Your task to perform on an android device: open chrome privacy settings Image 0: 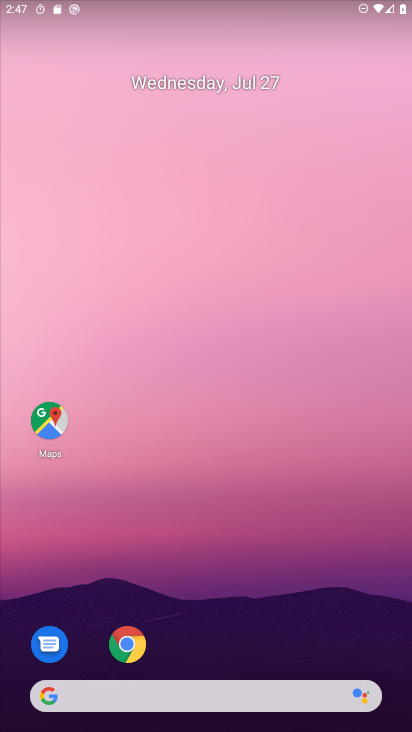
Step 0: drag from (196, 652) to (245, 13)
Your task to perform on an android device: open chrome privacy settings Image 1: 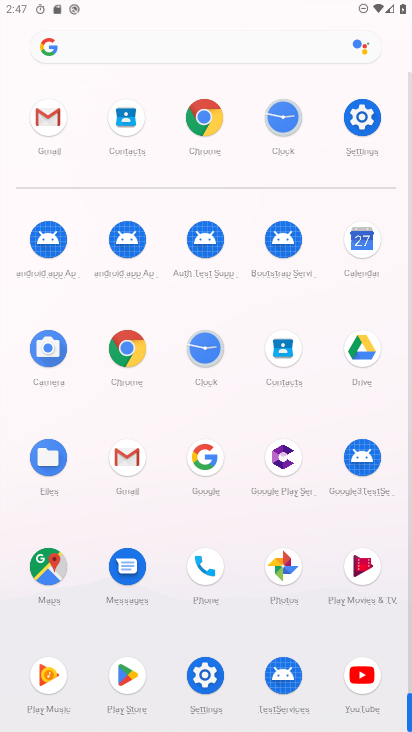
Step 1: click (140, 355)
Your task to perform on an android device: open chrome privacy settings Image 2: 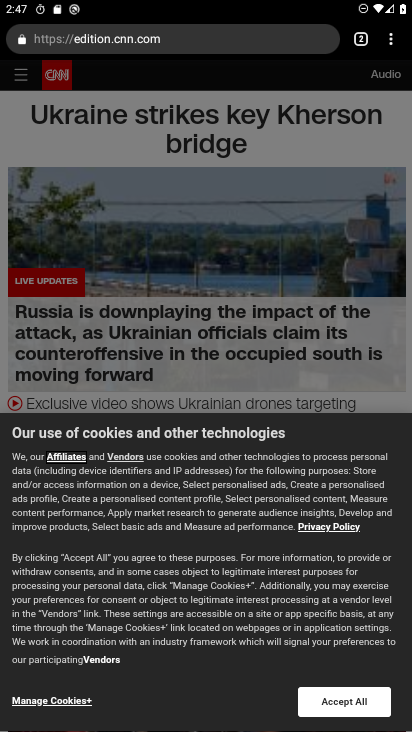
Step 2: click (391, 42)
Your task to perform on an android device: open chrome privacy settings Image 3: 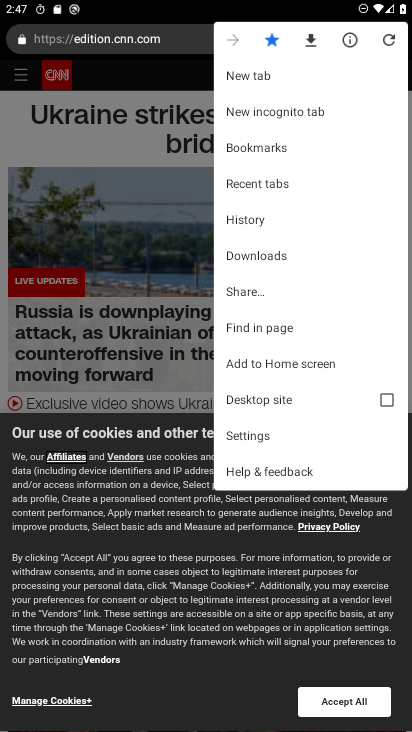
Step 3: click (239, 438)
Your task to perform on an android device: open chrome privacy settings Image 4: 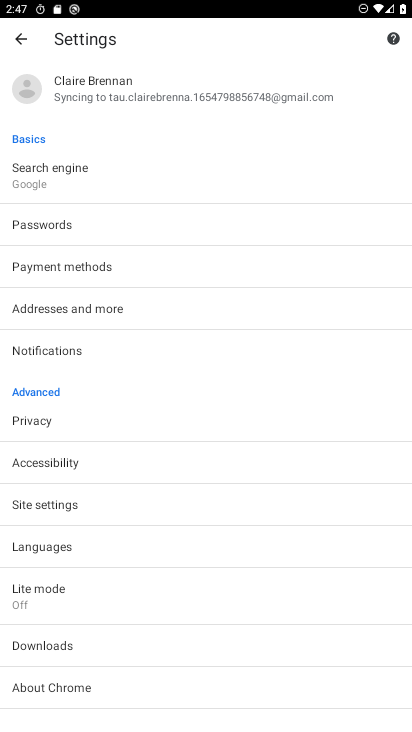
Step 4: click (53, 418)
Your task to perform on an android device: open chrome privacy settings Image 5: 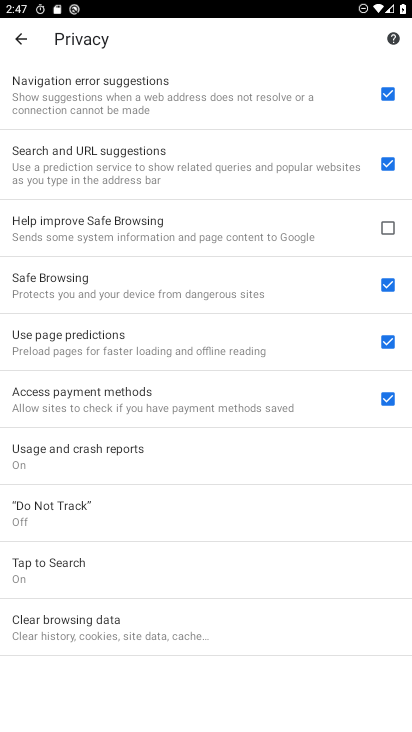
Step 5: task complete